Your task to perform on an android device: change alarm snooze length Image 0: 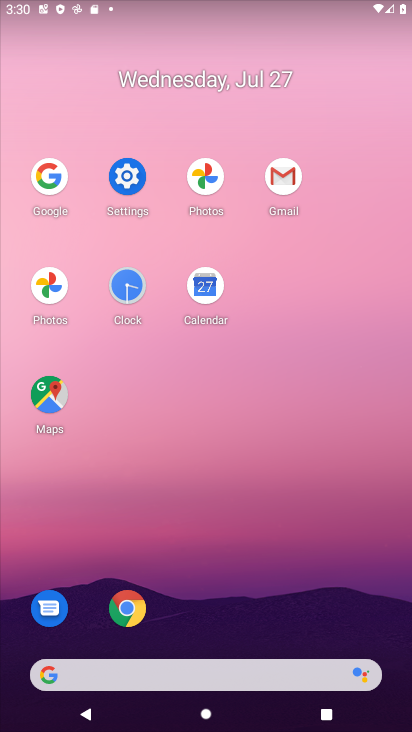
Step 0: click (134, 287)
Your task to perform on an android device: change alarm snooze length Image 1: 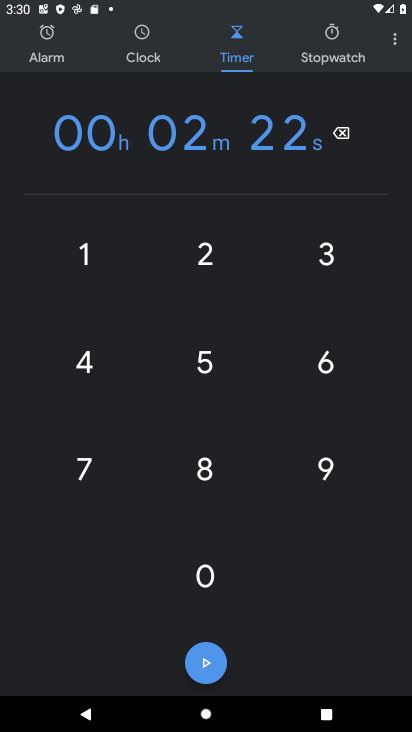
Step 1: click (395, 38)
Your task to perform on an android device: change alarm snooze length Image 2: 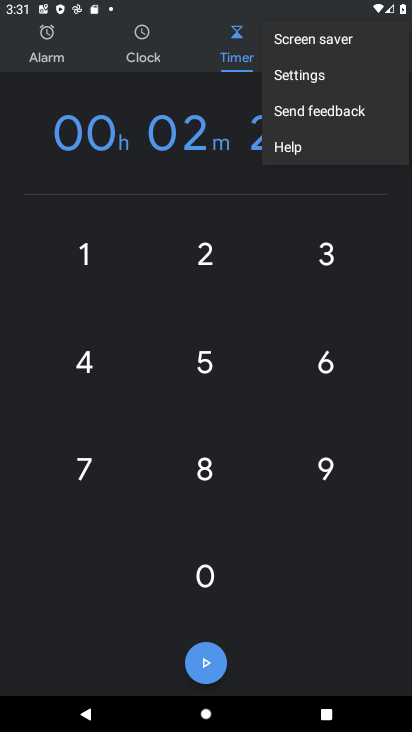
Step 2: click (297, 71)
Your task to perform on an android device: change alarm snooze length Image 3: 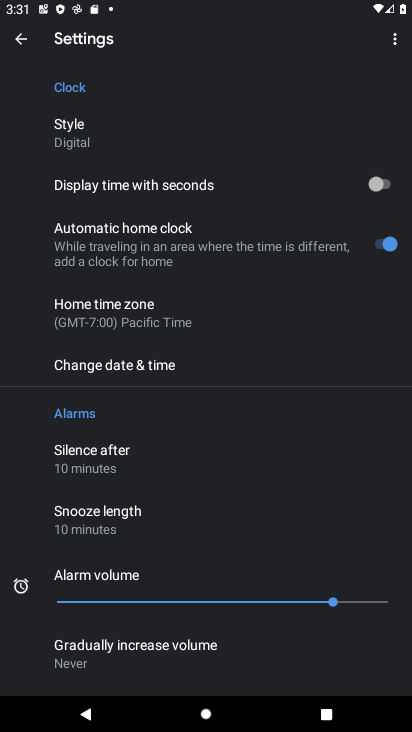
Step 3: click (115, 514)
Your task to perform on an android device: change alarm snooze length Image 4: 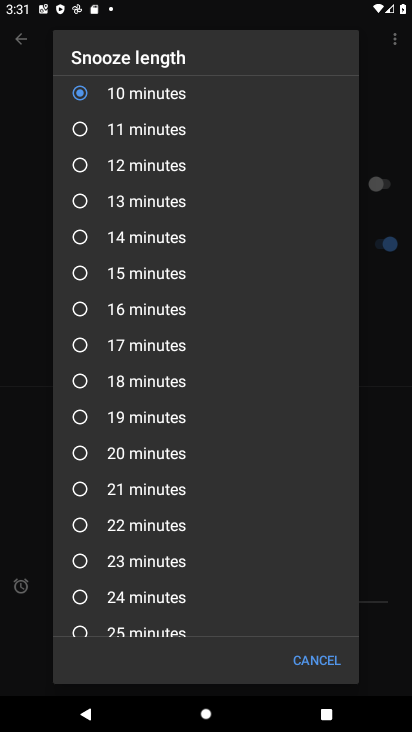
Step 4: click (163, 129)
Your task to perform on an android device: change alarm snooze length Image 5: 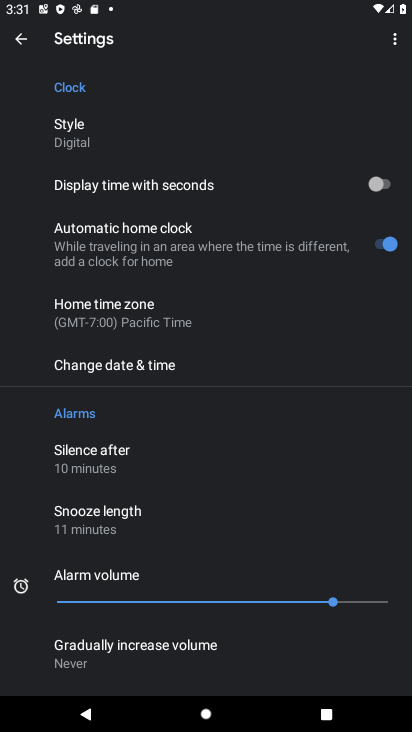
Step 5: task complete